Your task to perform on an android device: set the timer Image 0: 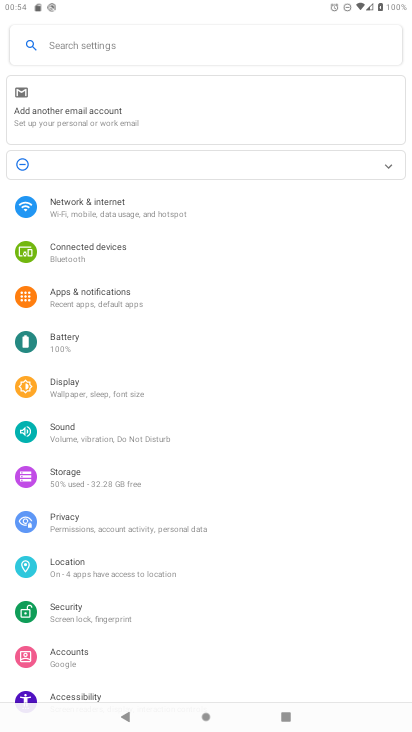
Step 0: press home button
Your task to perform on an android device: set the timer Image 1: 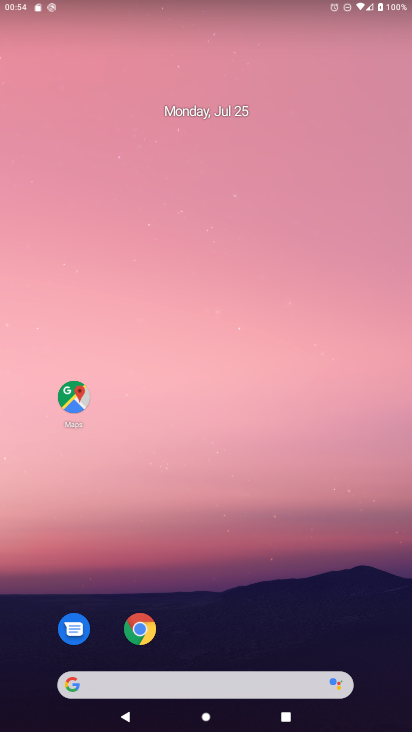
Step 1: drag from (248, 599) to (330, 88)
Your task to perform on an android device: set the timer Image 2: 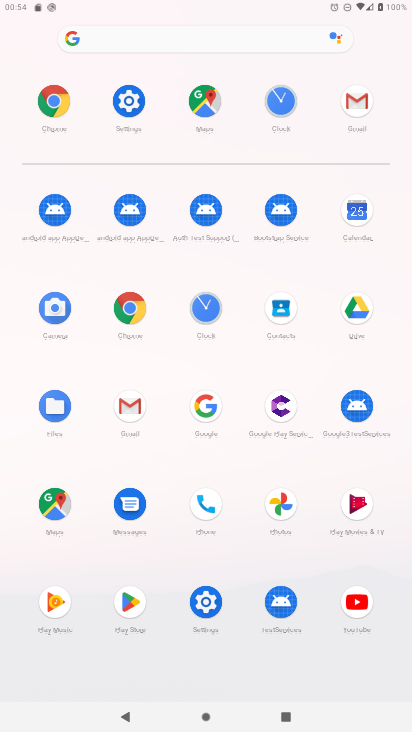
Step 2: click (191, 308)
Your task to perform on an android device: set the timer Image 3: 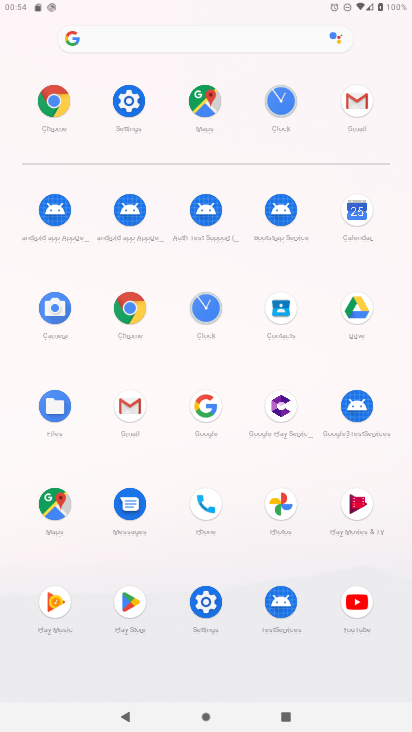
Step 3: click (191, 308)
Your task to perform on an android device: set the timer Image 4: 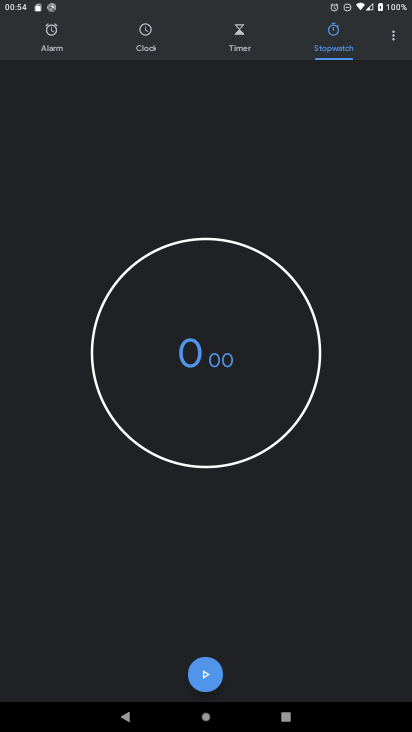
Step 4: click (241, 45)
Your task to perform on an android device: set the timer Image 5: 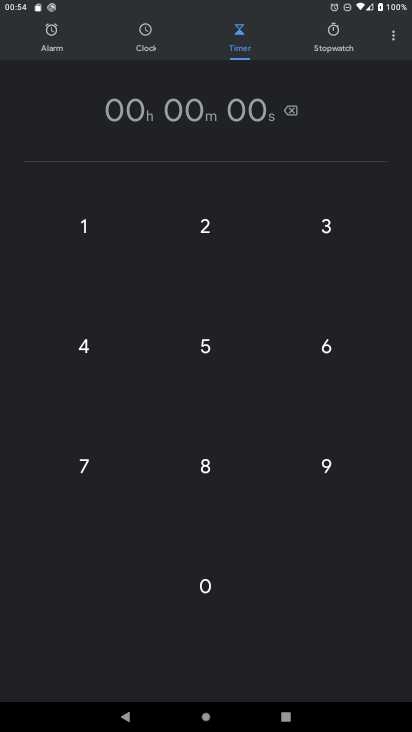
Step 5: click (205, 225)
Your task to perform on an android device: set the timer Image 6: 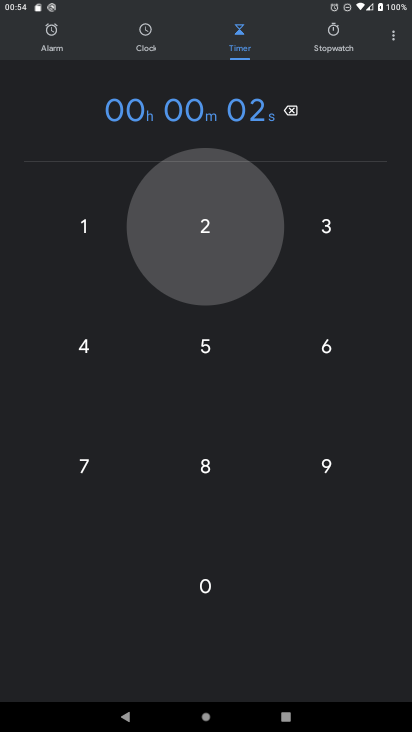
Step 6: click (324, 230)
Your task to perform on an android device: set the timer Image 7: 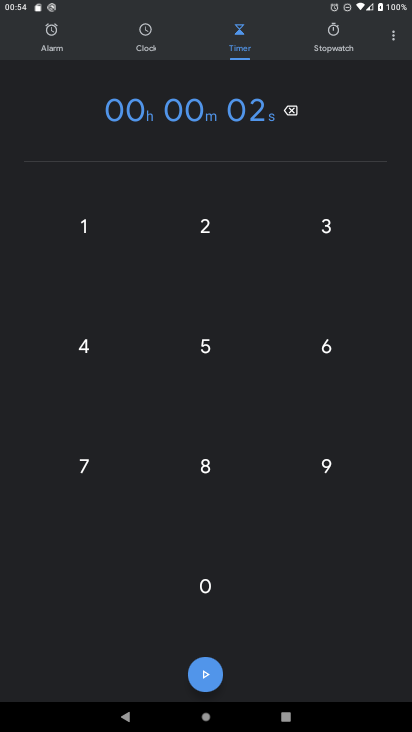
Step 7: click (212, 336)
Your task to perform on an android device: set the timer Image 8: 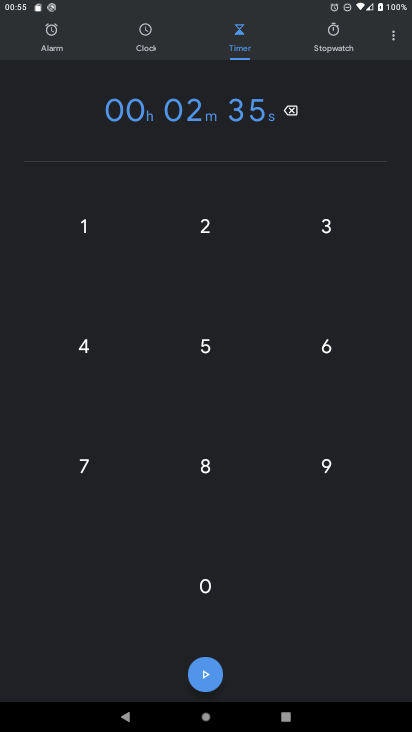
Step 8: click (203, 678)
Your task to perform on an android device: set the timer Image 9: 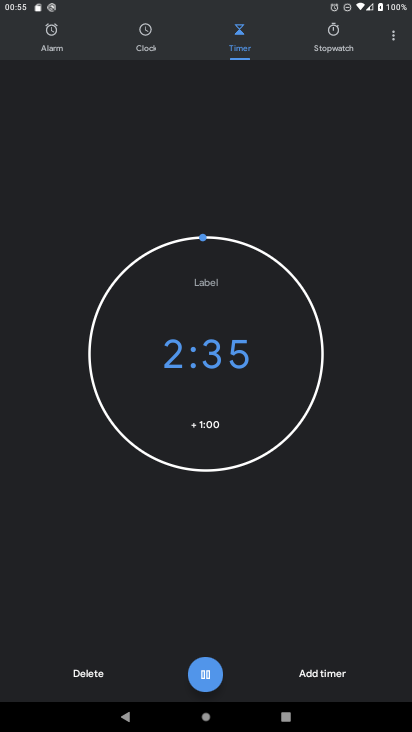
Step 9: task complete